Your task to perform on an android device: read, delete, or share a saved page in the chrome app Image 0: 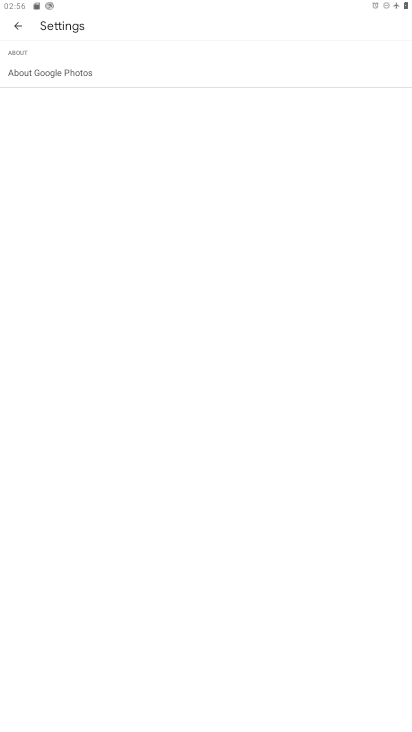
Step 0: press home button
Your task to perform on an android device: read, delete, or share a saved page in the chrome app Image 1: 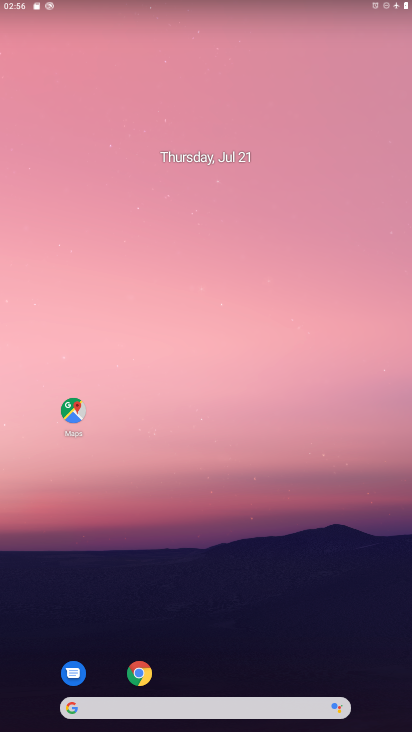
Step 1: drag from (223, 665) to (246, 284)
Your task to perform on an android device: read, delete, or share a saved page in the chrome app Image 2: 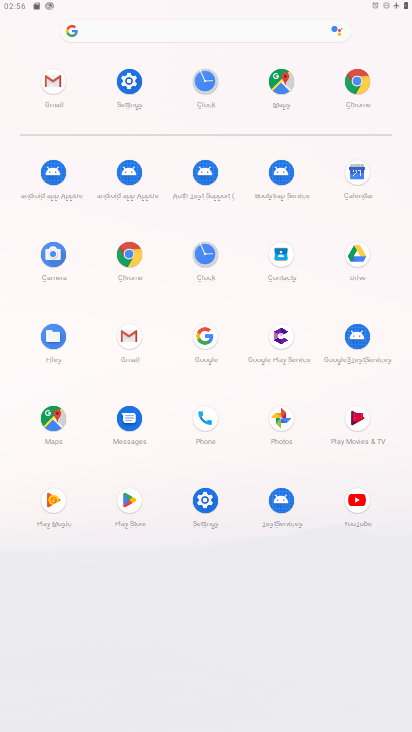
Step 2: click (352, 71)
Your task to perform on an android device: read, delete, or share a saved page in the chrome app Image 3: 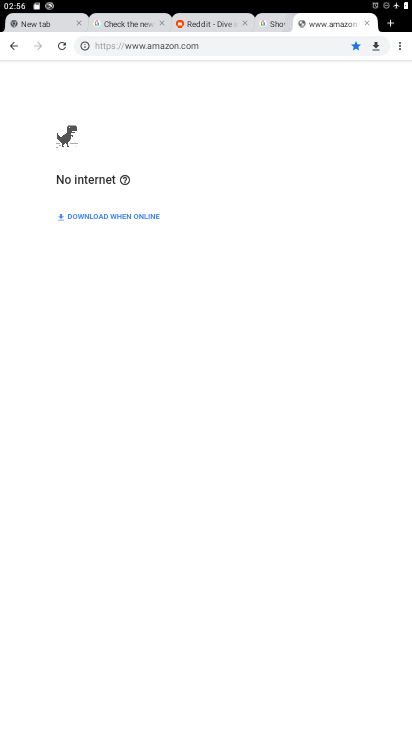
Step 3: click (399, 48)
Your task to perform on an android device: read, delete, or share a saved page in the chrome app Image 4: 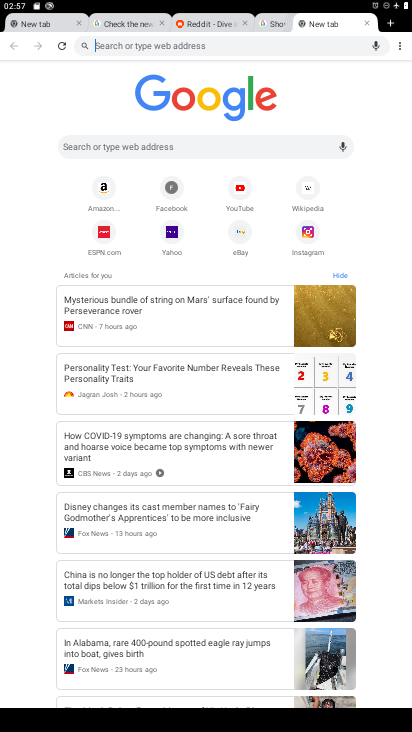
Step 4: click (399, 48)
Your task to perform on an android device: read, delete, or share a saved page in the chrome app Image 5: 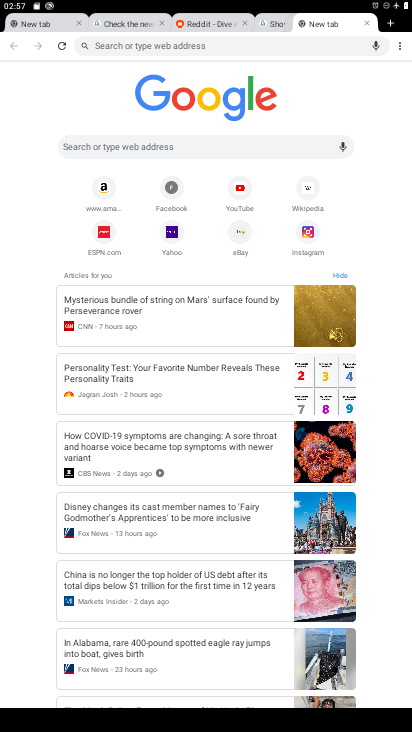
Step 5: click (399, 48)
Your task to perform on an android device: read, delete, or share a saved page in the chrome app Image 6: 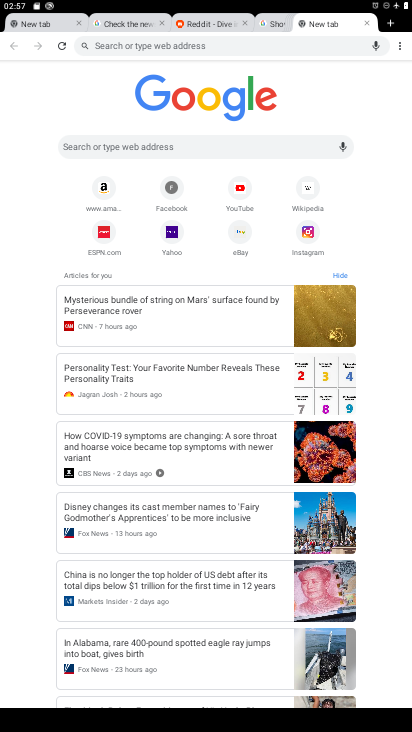
Step 6: click (399, 42)
Your task to perform on an android device: read, delete, or share a saved page in the chrome app Image 7: 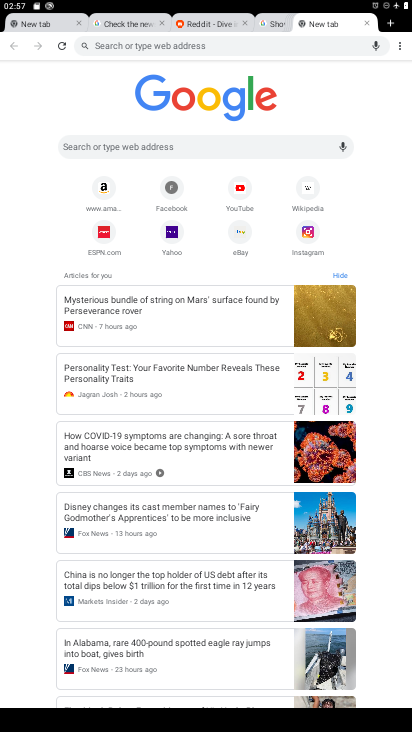
Step 7: click (399, 42)
Your task to perform on an android device: read, delete, or share a saved page in the chrome app Image 8: 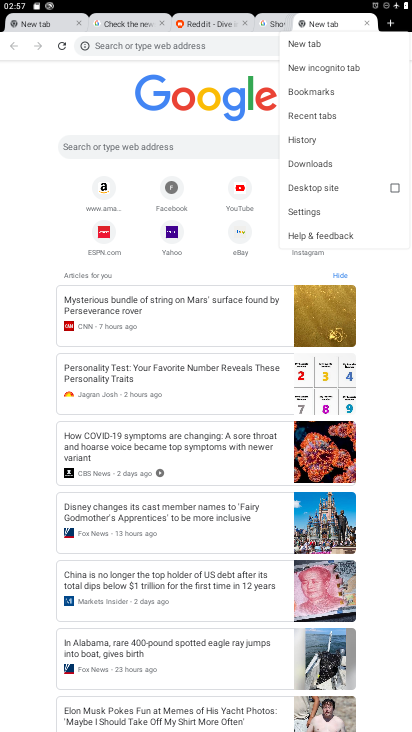
Step 8: click (332, 212)
Your task to perform on an android device: read, delete, or share a saved page in the chrome app Image 9: 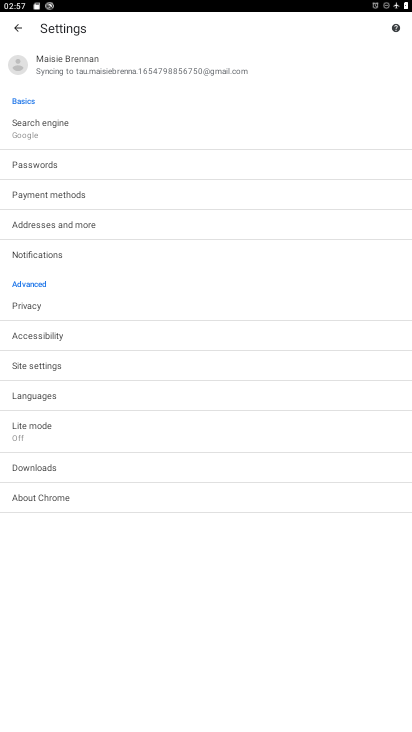
Step 9: task complete